Your task to perform on an android device: add a contact in the contacts app Image 0: 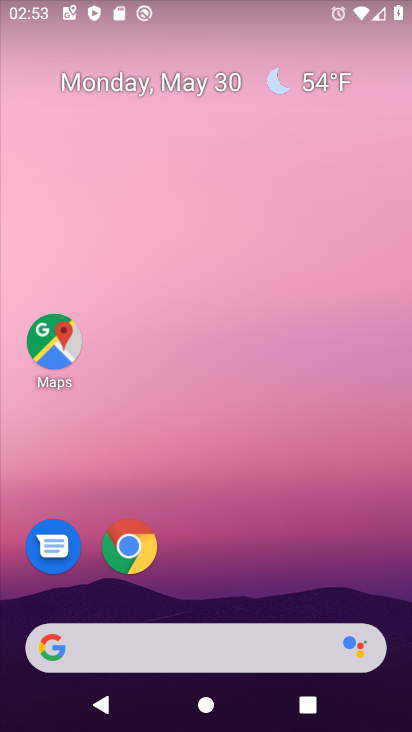
Step 0: press home button
Your task to perform on an android device: add a contact in the contacts app Image 1: 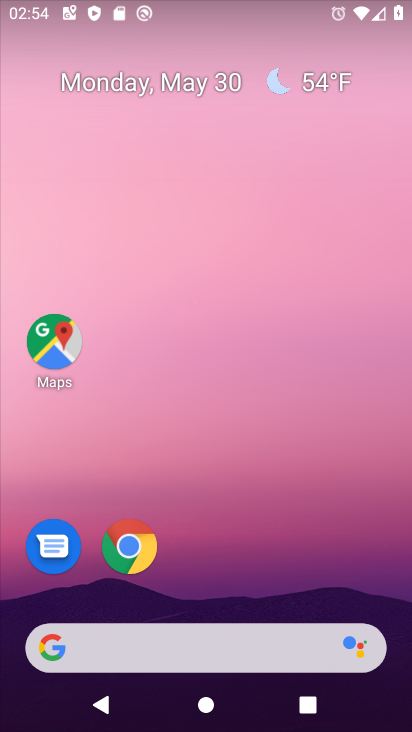
Step 1: drag from (219, 594) to (239, 126)
Your task to perform on an android device: add a contact in the contacts app Image 2: 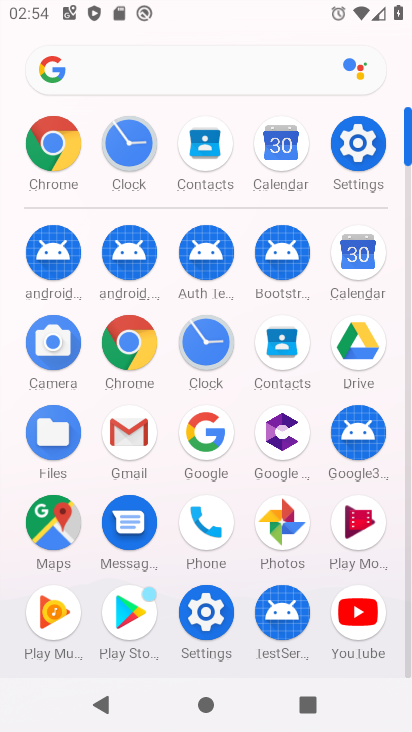
Step 2: click (279, 340)
Your task to perform on an android device: add a contact in the contacts app Image 3: 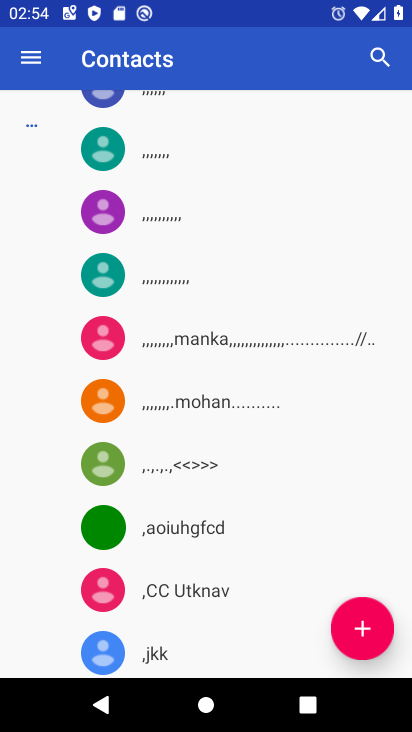
Step 3: click (352, 625)
Your task to perform on an android device: add a contact in the contacts app Image 4: 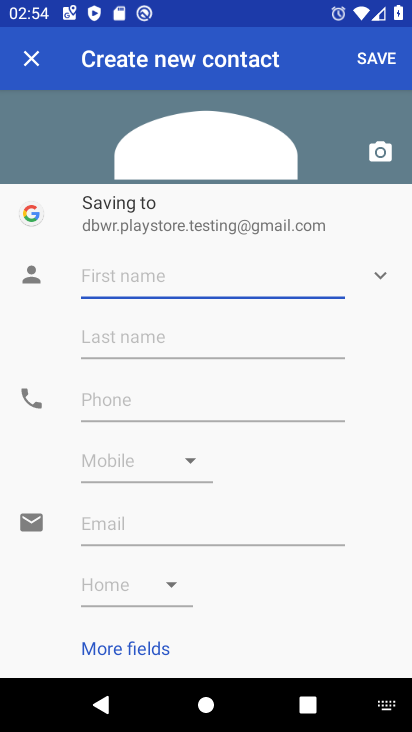
Step 4: click (131, 277)
Your task to perform on an android device: add a contact in the contacts app Image 5: 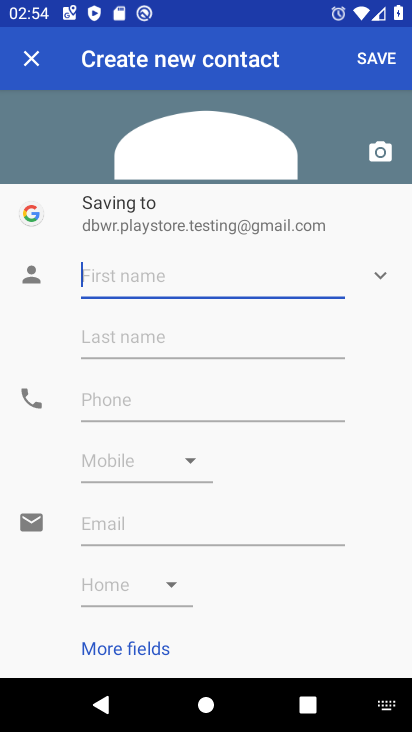
Step 5: type "gfhbvhng"
Your task to perform on an android device: add a contact in the contacts app Image 6: 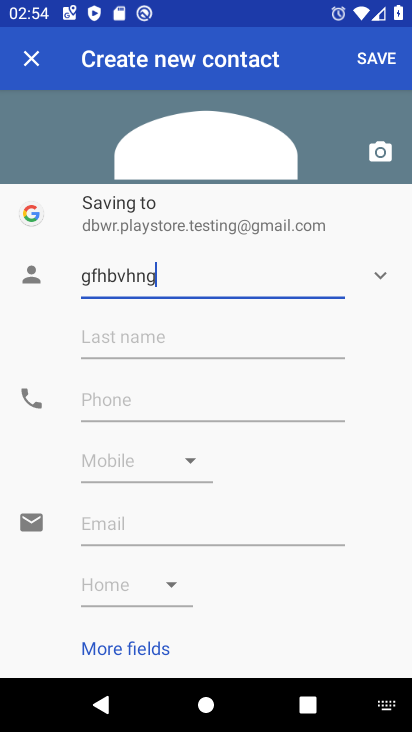
Step 6: type ""
Your task to perform on an android device: add a contact in the contacts app Image 7: 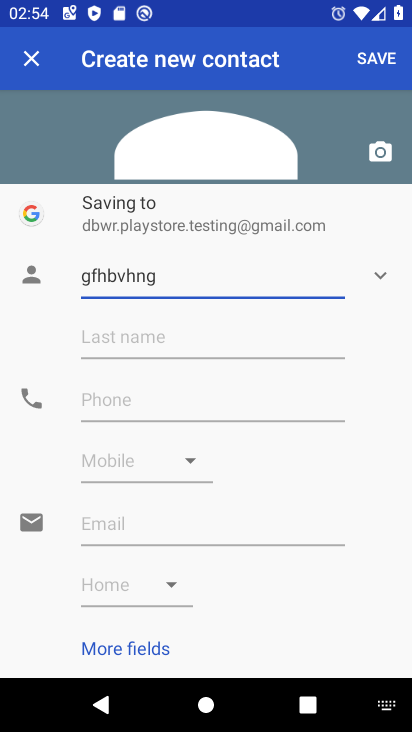
Step 7: click (380, 54)
Your task to perform on an android device: add a contact in the contacts app Image 8: 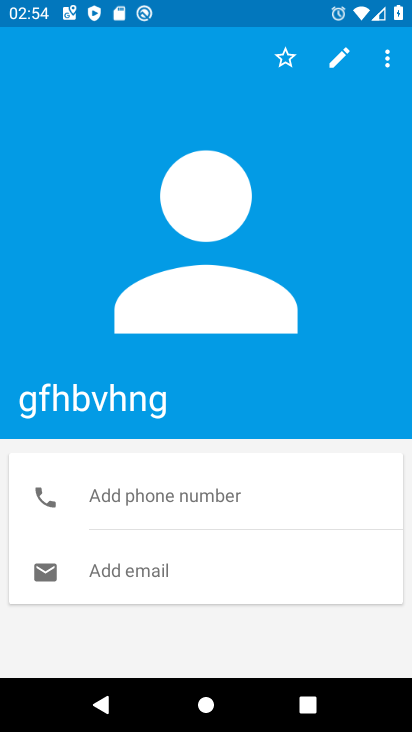
Step 8: task complete